Your task to perform on an android device: open device folders in google photos Image 0: 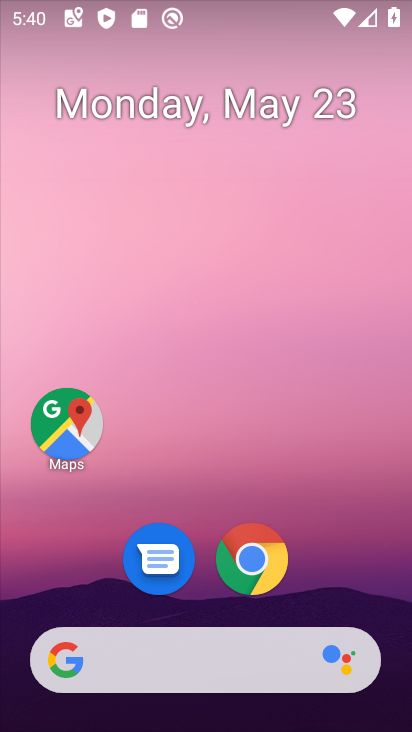
Step 0: drag from (312, 640) to (362, 4)
Your task to perform on an android device: open device folders in google photos Image 1: 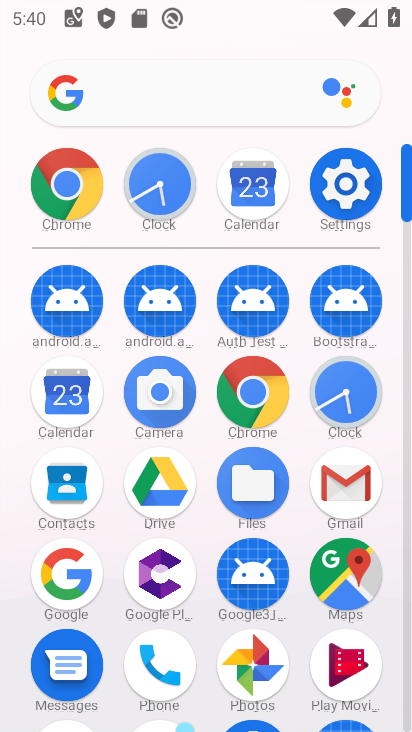
Step 1: click (252, 659)
Your task to perform on an android device: open device folders in google photos Image 2: 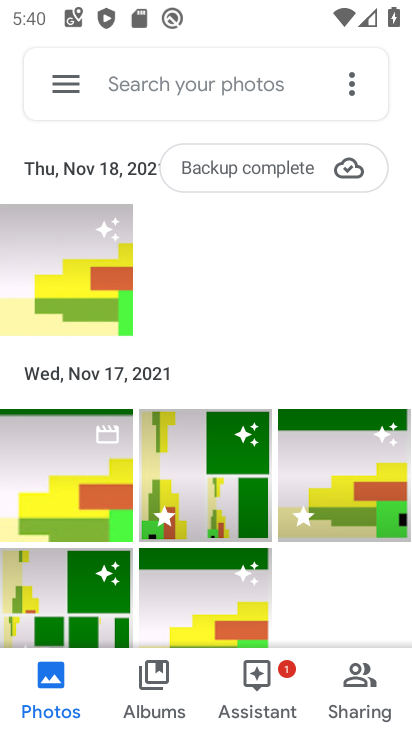
Step 2: click (50, 75)
Your task to perform on an android device: open device folders in google photos Image 3: 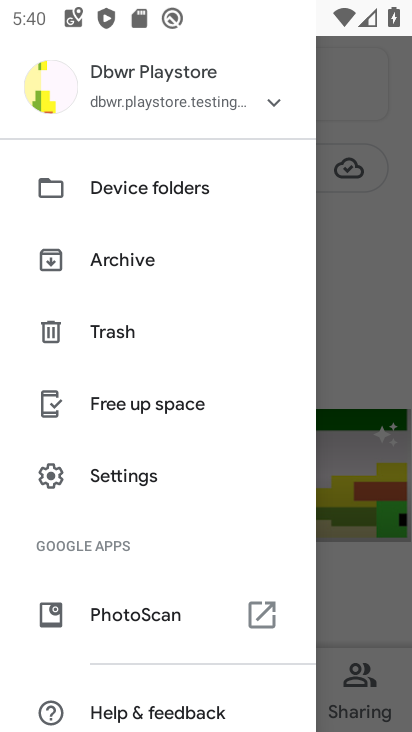
Step 3: click (87, 191)
Your task to perform on an android device: open device folders in google photos Image 4: 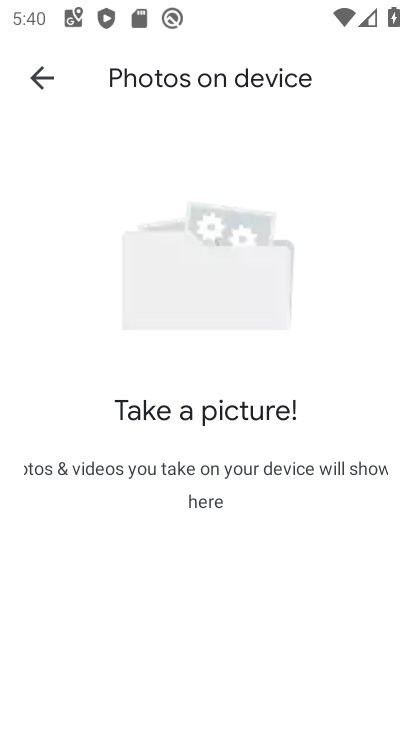
Step 4: task complete